Your task to perform on an android device: Show me popular games on the Play Store Image 0: 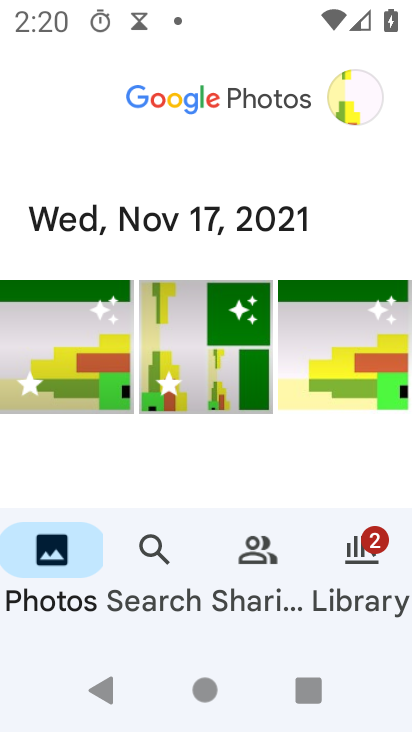
Step 0: press home button
Your task to perform on an android device: Show me popular games on the Play Store Image 1: 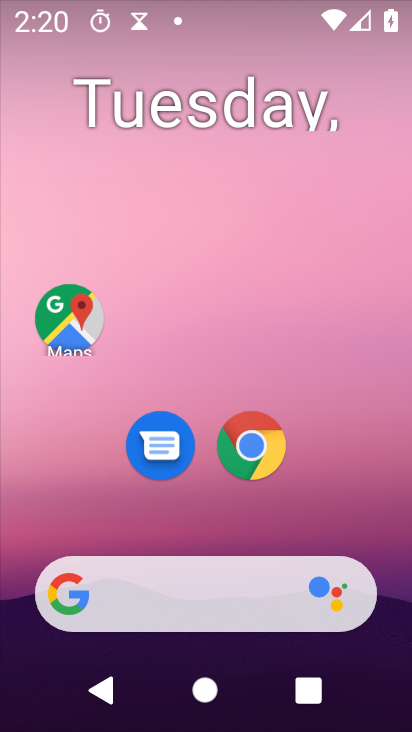
Step 1: drag from (373, 621) to (361, 44)
Your task to perform on an android device: Show me popular games on the Play Store Image 2: 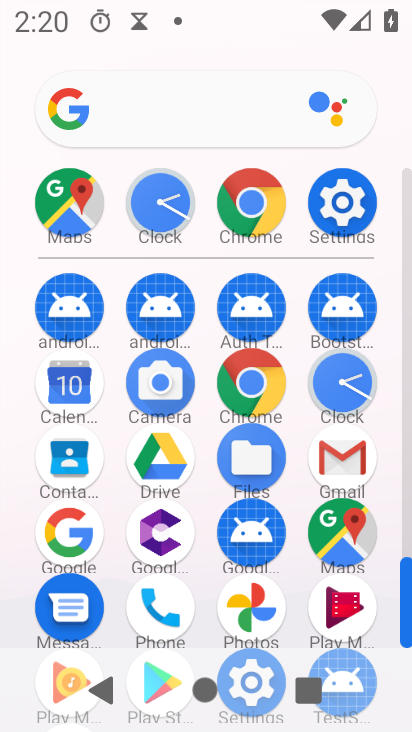
Step 2: drag from (296, 662) to (289, 350)
Your task to perform on an android device: Show me popular games on the Play Store Image 3: 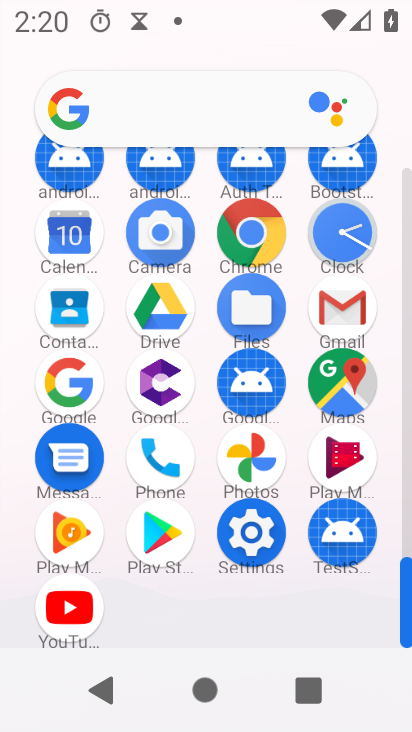
Step 3: click (162, 546)
Your task to perform on an android device: Show me popular games on the Play Store Image 4: 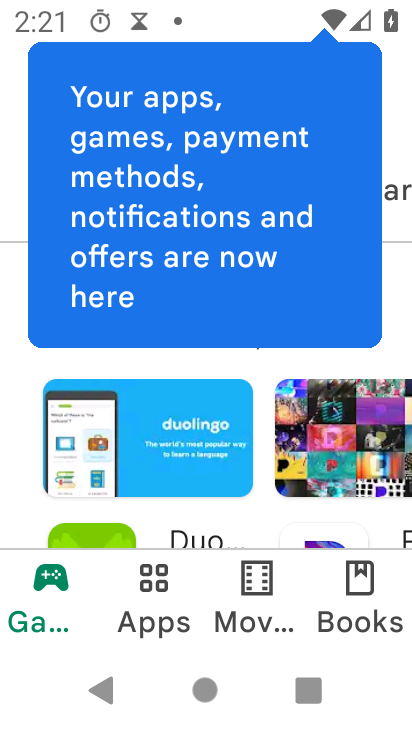
Step 4: click (175, 602)
Your task to perform on an android device: Show me popular games on the Play Store Image 5: 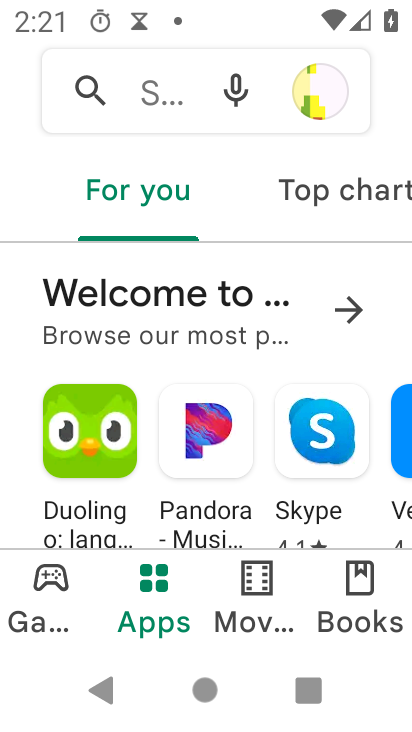
Step 5: task complete